Your task to perform on an android device: turn on javascript in the chrome app Image 0: 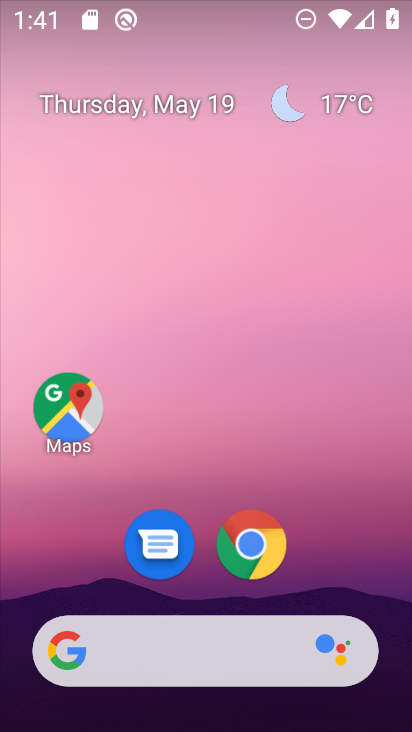
Step 0: click (250, 547)
Your task to perform on an android device: turn on javascript in the chrome app Image 1: 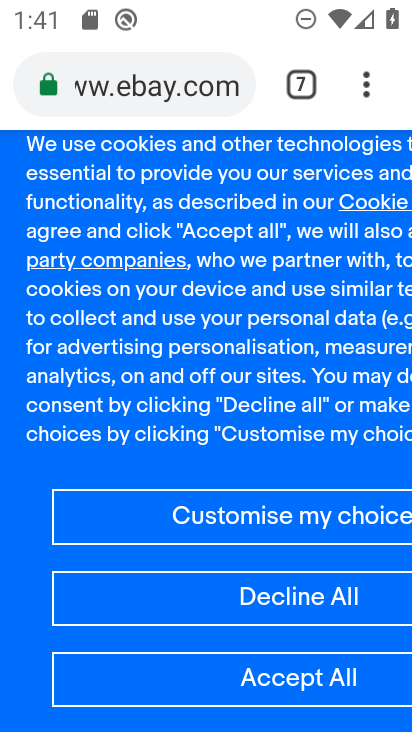
Step 1: click (368, 89)
Your task to perform on an android device: turn on javascript in the chrome app Image 2: 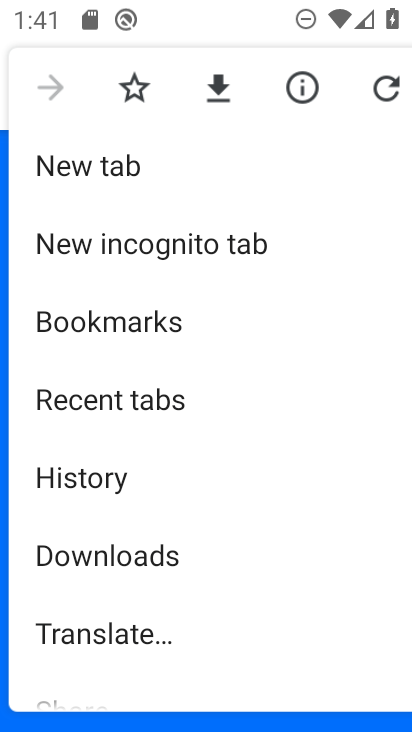
Step 2: drag from (88, 663) to (124, 294)
Your task to perform on an android device: turn on javascript in the chrome app Image 3: 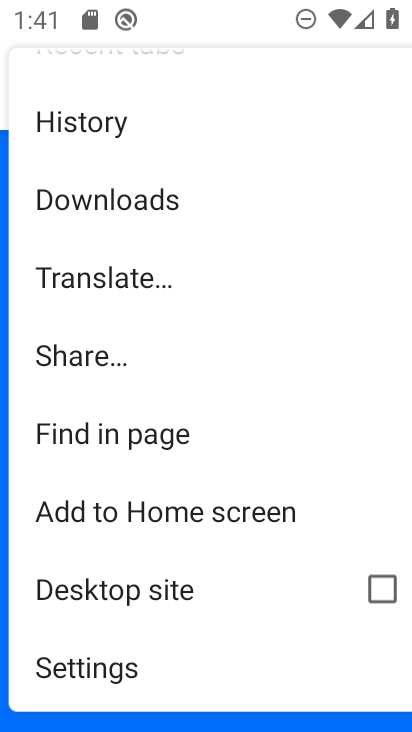
Step 3: click (101, 673)
Your task to perform on an android device: turn on javascript in the chrome app Image 4: 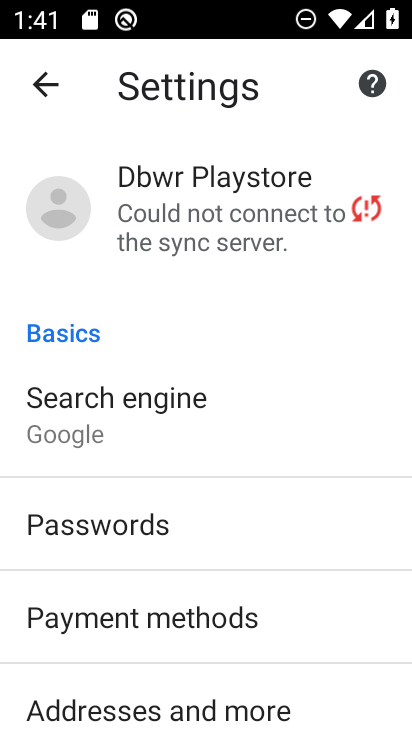
Step 4: drag from (123, 662) to (121, 241)
Your task to perform on an android device: turn on javascript in the chrome app Image 5: 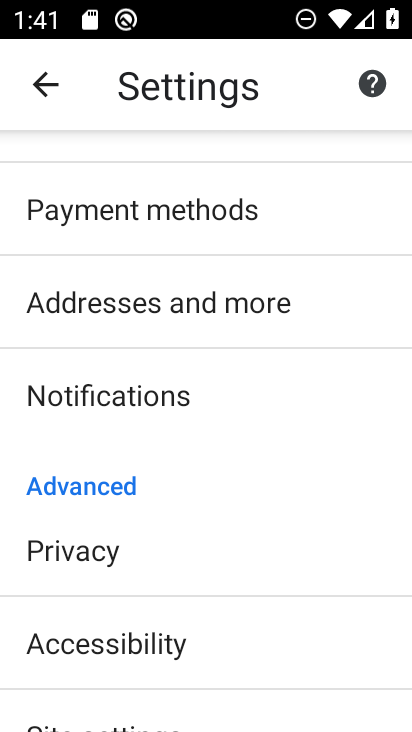
Step 5: drag from (127, 666) to (125, 256)
Your task to perform on an android device: turn on javascript in the chrome app Image 6: 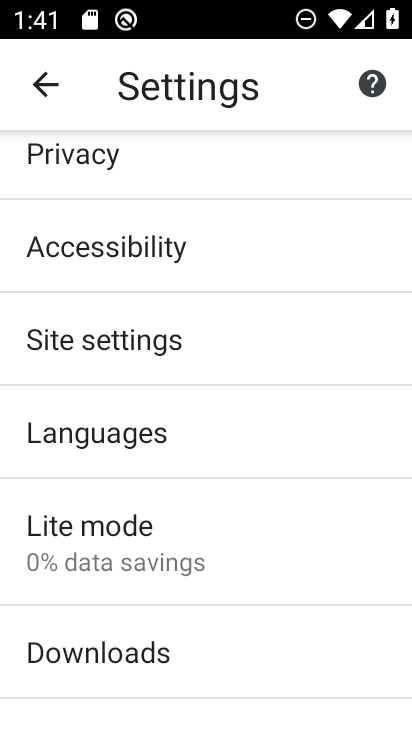
Step 6: click (90, 338)
Your task to perform on an android device: turn on javascript in the chrome app Image 7: 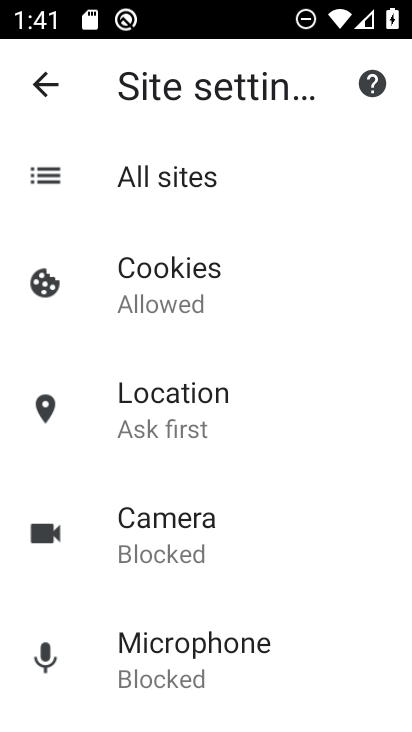
Step 7: drag from (139, 619) to (159, 318)
Your task to perform on an android device: turn on javascript in the chrome app Image 8: 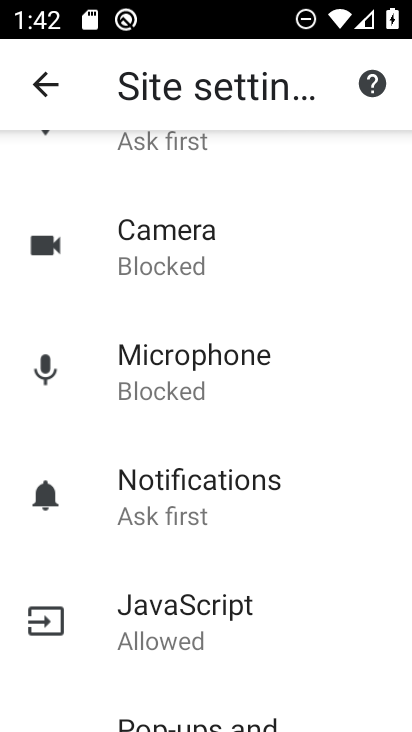
Step 8: click (157, 617)
Your task to perform on an android device: turn on javascript in the chrome app Image 9: 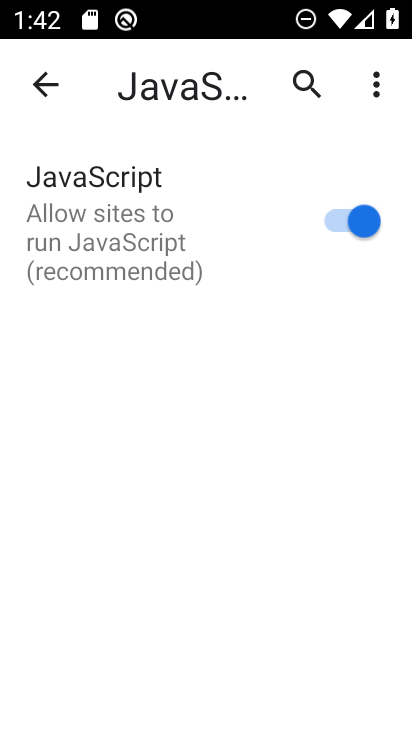
Step 9: task complete